Your task to perform on an android device: turn off picture-in-picture Image 0: 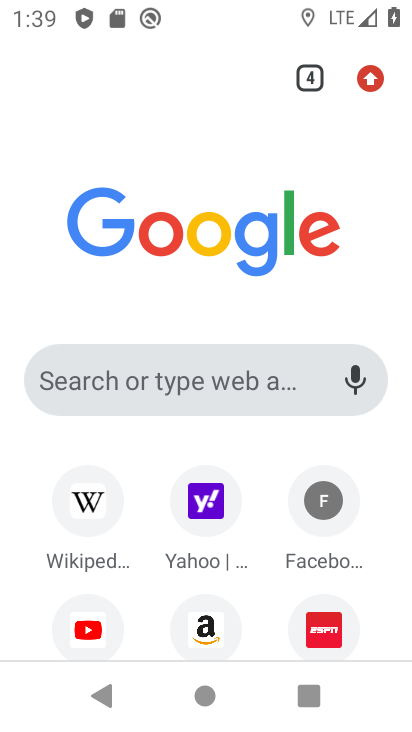
Step 0: press home button
Your task to perform on an android device: turn off picture-in-picture Image 1: 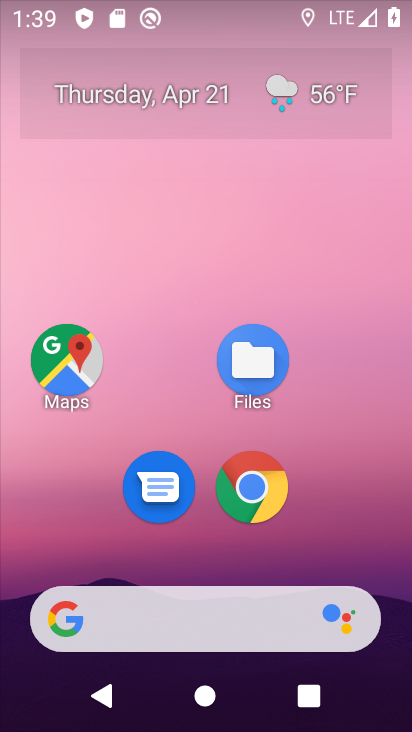
Step 1: drag from (375, 528) to (375, 110)
Your task to perform on an android device: turn off picture-in-picture Image 2: 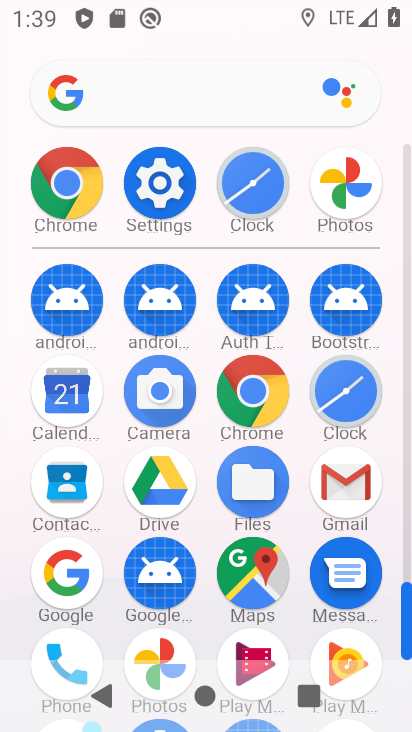
Step 2: click (172, 186)
Your task to perform on an android device: turn off picture-in-picture Image 3: 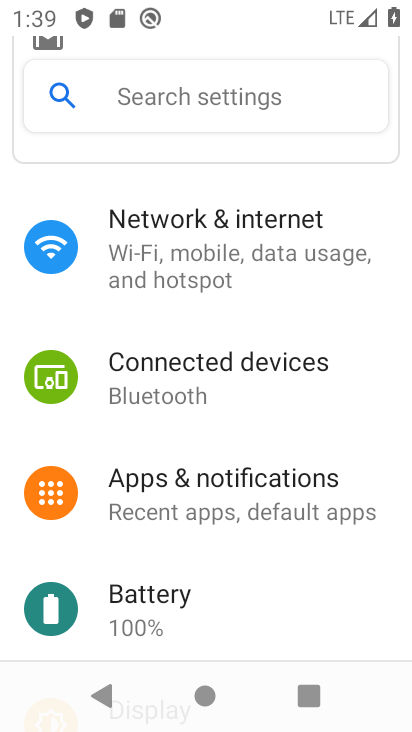
Step 3: click (273, 511)
Your task to perform on an android device: turn off picture-in-picture Image 4: 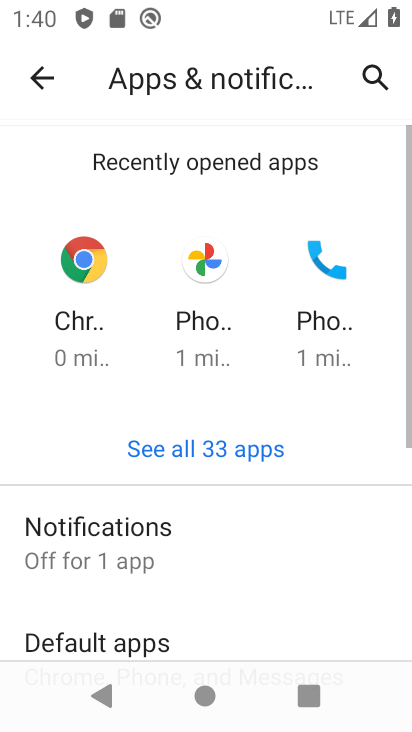
Step 4: drag from (315, 600) to (310, 206)
Your task to perform on an android device: turn off picture-in-picture Image 5: 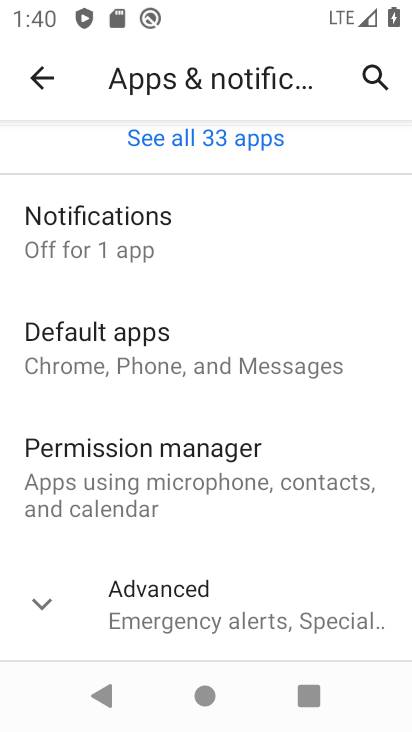
Step 5: drag from (299, 550) to (298, 301)
Your task to perform on an android device: turn off picture-in-picture Image 6: 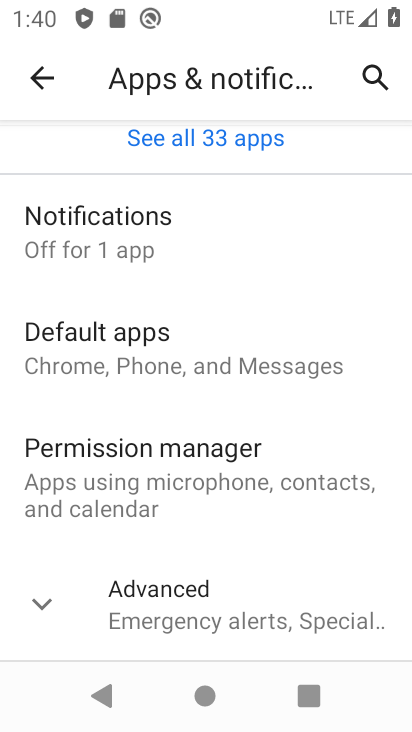
Step 6: click (291, 599)
Your task to perform on an android device: turn off picture-in-picture Image 7: 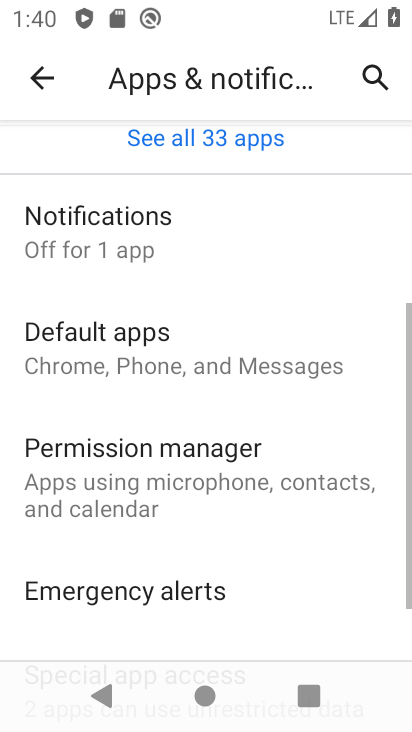
Step 7: drag from (268, 609) to (301, 249)
Your task to perform on an android device: turn off picture-in-picture Image 8: 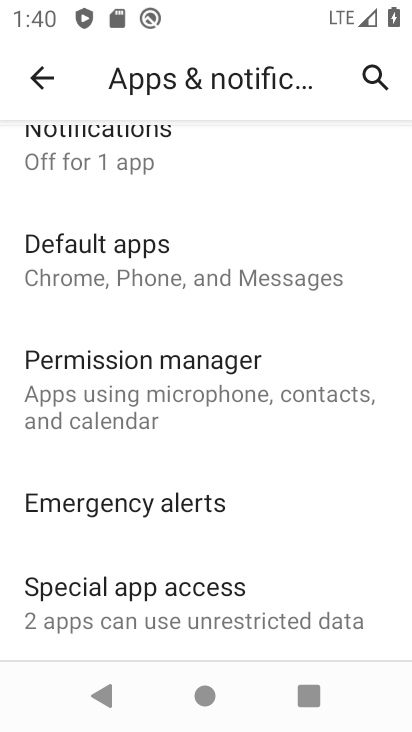
Step 8: click (223, 596)
Your task to perform on an android device: turn off picture-in-picture Image 9: 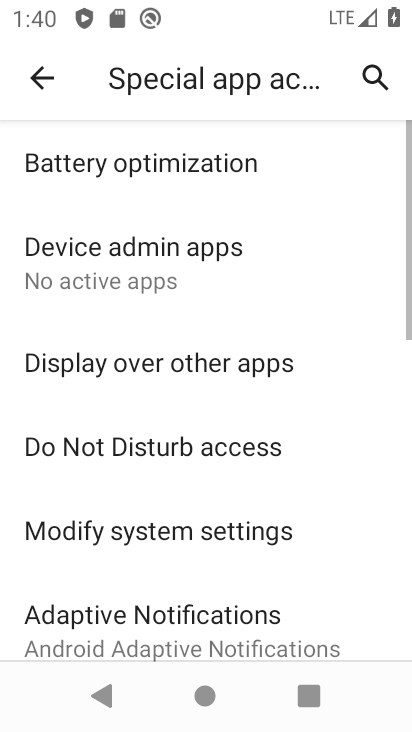
Step 9: drag from (297, 588) to (308, 230)
Your task to perform on an android device: turn off picture-in-picture Image 10: 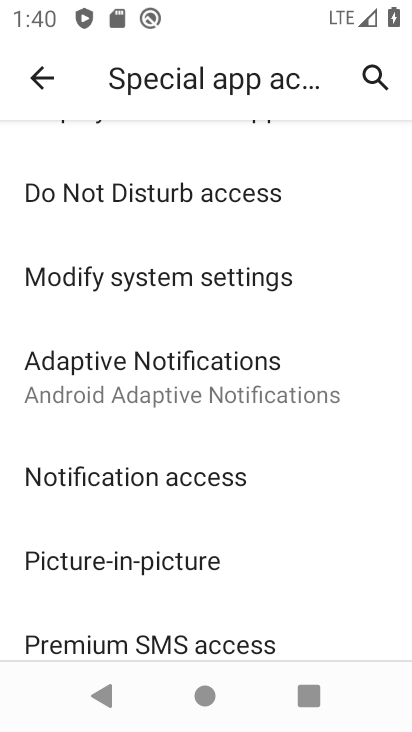
Step 10: click (178, 560)
Your task to perform on an android device: turn off picture-in-picture Image 11: 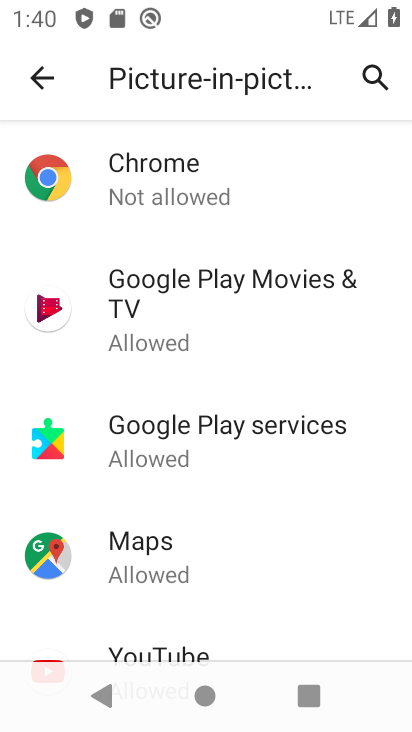
Step 11: click (204, 196)
Your task to perform on an android device: turn off picture-in-picture Image 12: 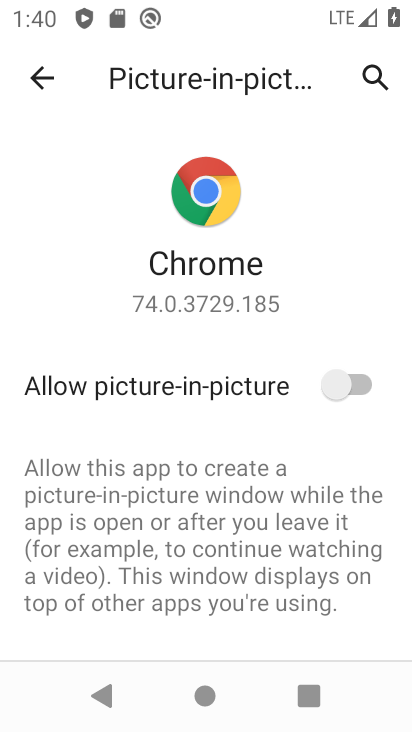
Step 12: task complete